Your task to perform on an android device: change the clock display to analog Image 0: 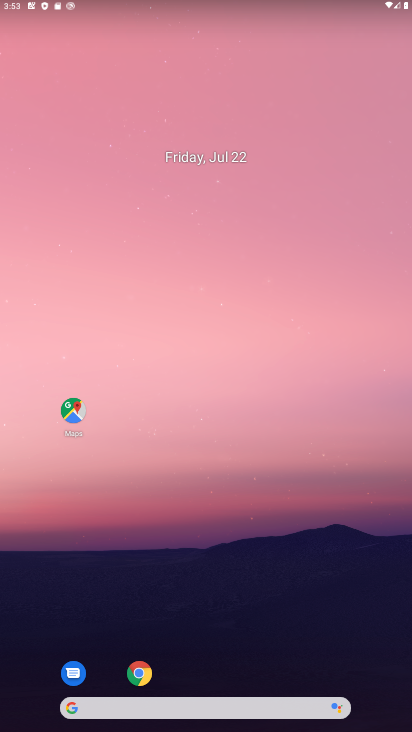
Step 0: press home button
Your task to perform on an android device: change the clock display to analog Image 1: 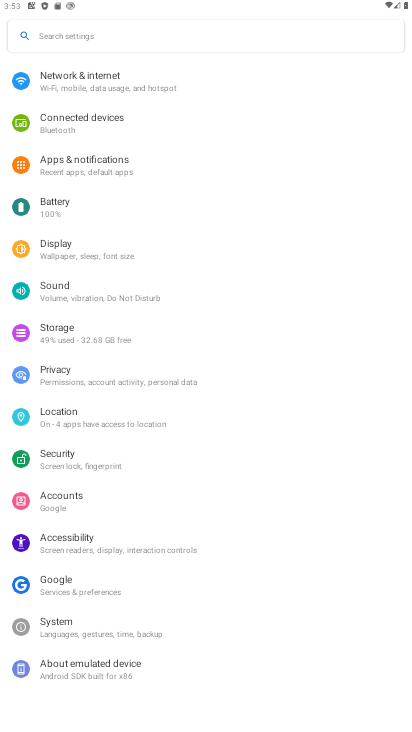
Step 1: click (133, 672)
Your task to perform on an android device: change the clock display to analog Image 2: 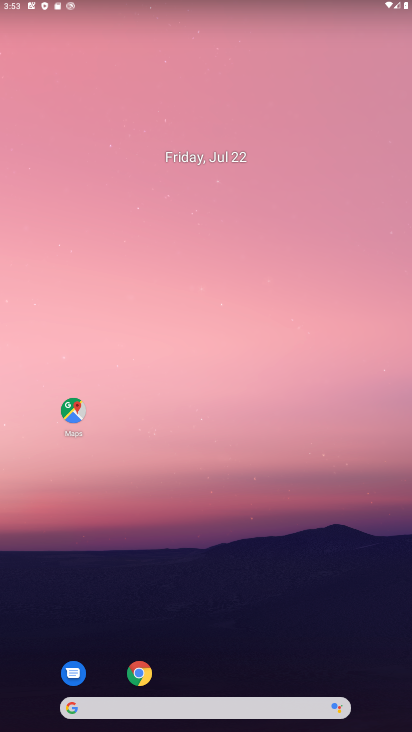
Step 2: drag from (238, 663) to (267, 97)
Your task to perform on an android device: change the clock display to analog Image 3: 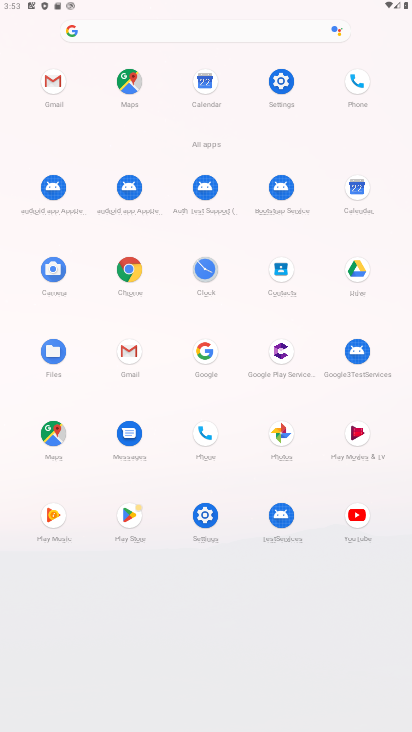
Step 3: click (199, 263)
Your task to perform on an android device: change the clock display to analog Image 4: 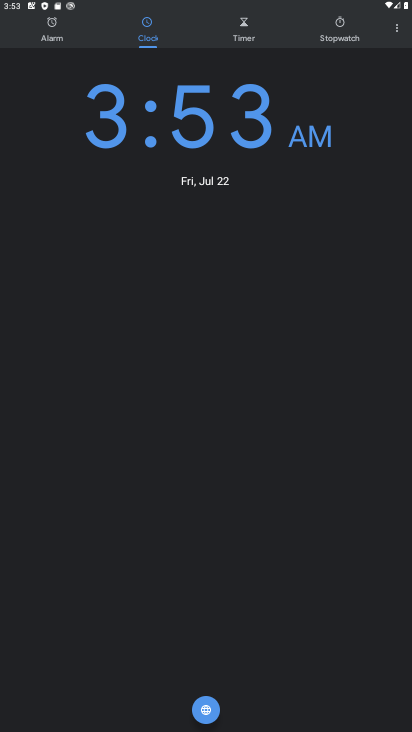
Step 4: click (399, 25)
Your task to perform on an android device: change the clock display to analog Image 5: 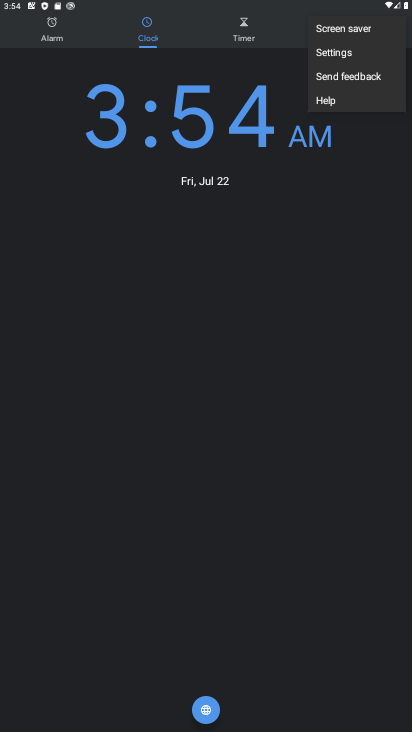
Step 5: click (351, 43)
Your task to perform on an android device: change the clock display to analog Image 6: 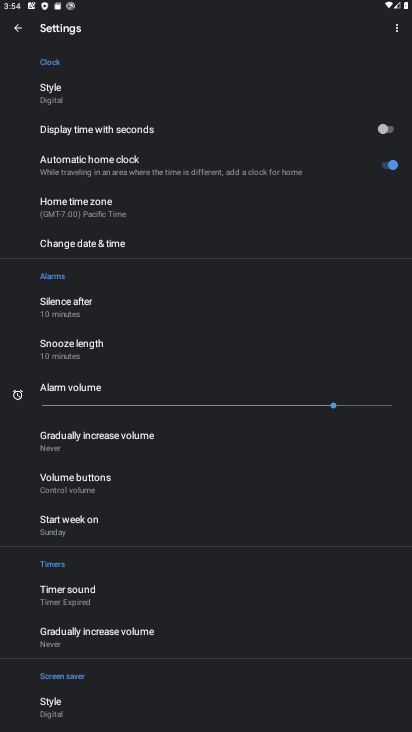
Step 6: click (75, 87)
Your task to perform on an android device: change the clock display to analog Image 7: 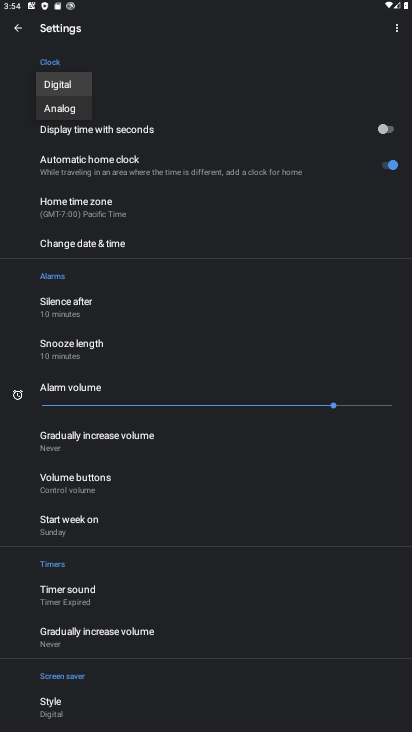
Step 7: click (74, 107)
Your task to perform on an android device: change the clock display to analog Image 8: 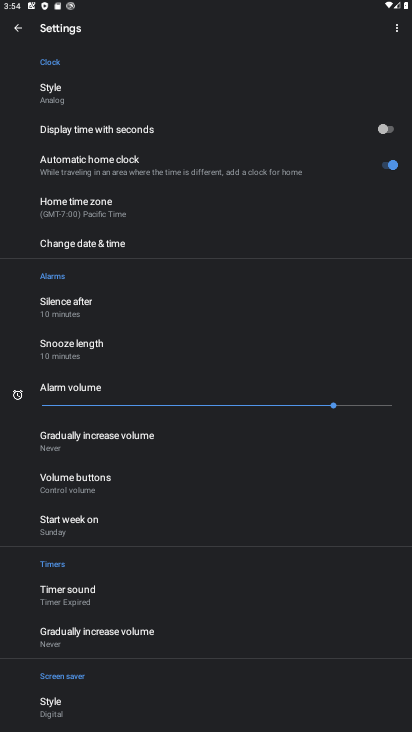
Step 8: task complete